Your task to perform on an android device: Clear the cart on bestbuy. Search for "duracell triple a" on bestbuy, select the first entry, and add it to the cart. Image 0: 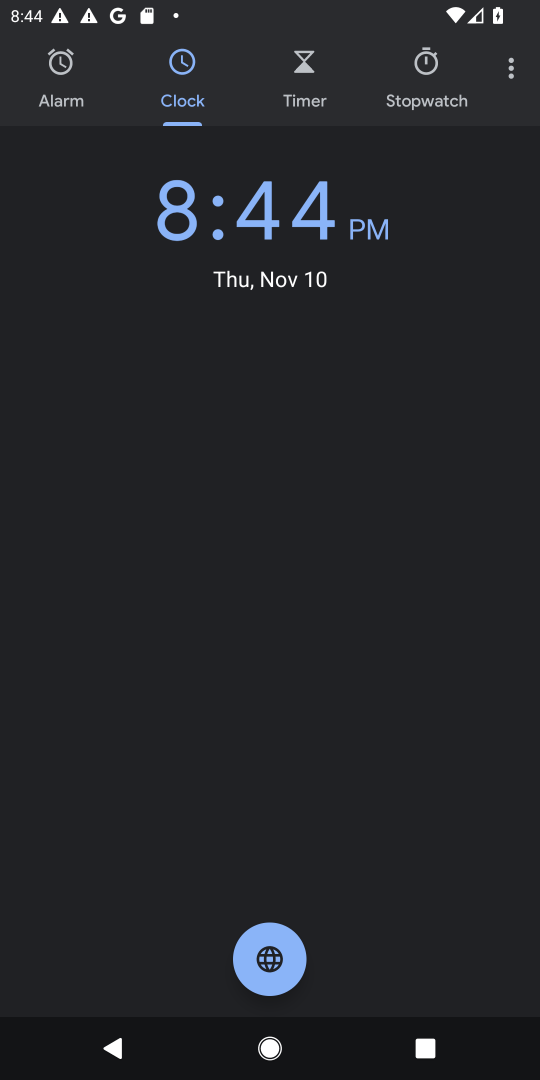
Step 0: press home button
Your task to perform on an android device: Clear the cart on bestbuy. Search for "duracell triple a" on bestbuy, select the first entry, and add it to the cart. Image 1: 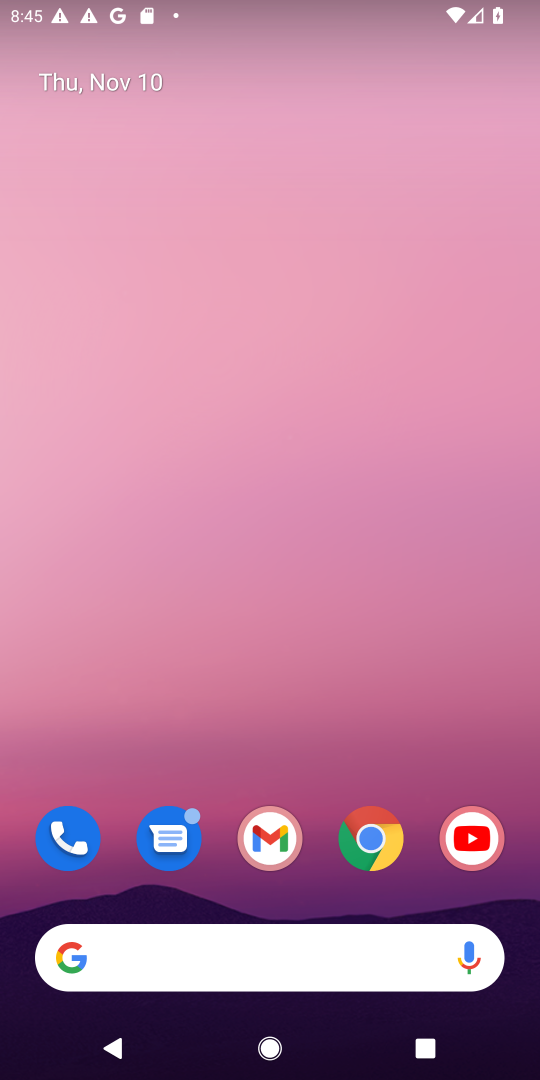
Step 1: drag from (313, 904) to (300, 67)
Your task to perform on an android device: Clear the cart on bestbuy. Search for "duracell triple a" on bestbuy, select the first entry, and add it to the cart. Image 2: 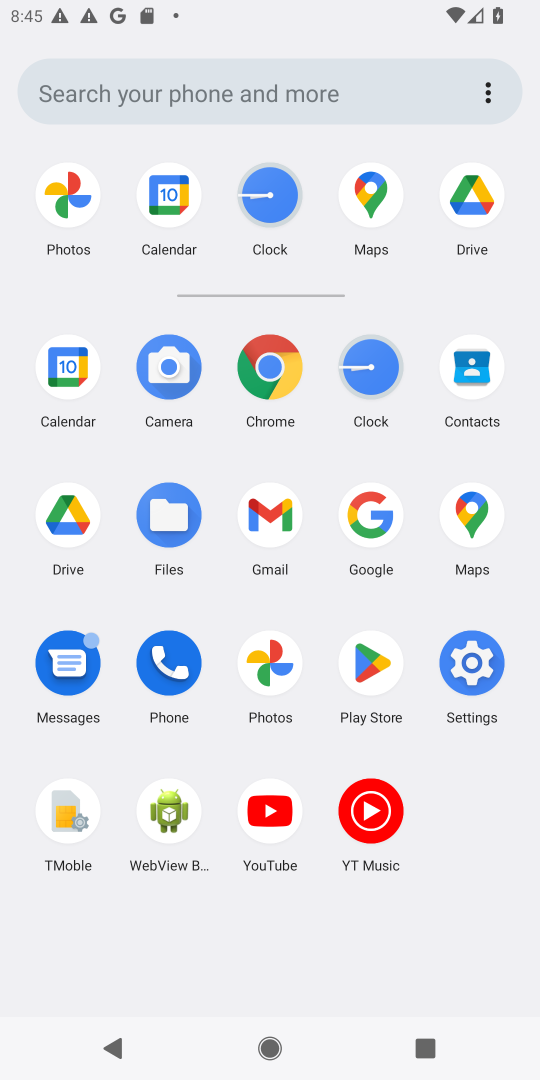
Step 2: click (269, 365)
Your task to perform on an android device: Clear the cart on bestbuy. Search for "duracell triple a" on bestbuy, select the first entry, and add it to the cart. Image 3: 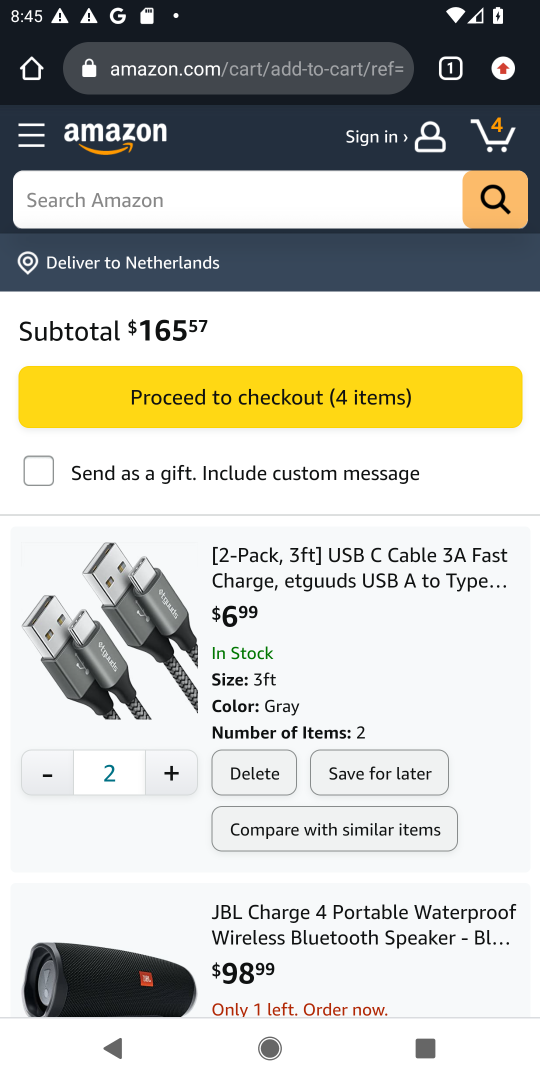
Step 3: click (309, 68)
Your task to perform on an android device: Clear the cart on bestbuy. Search for "duracell triple a" on bestbuy, select the first entry, and add it to the cart. Image 4: 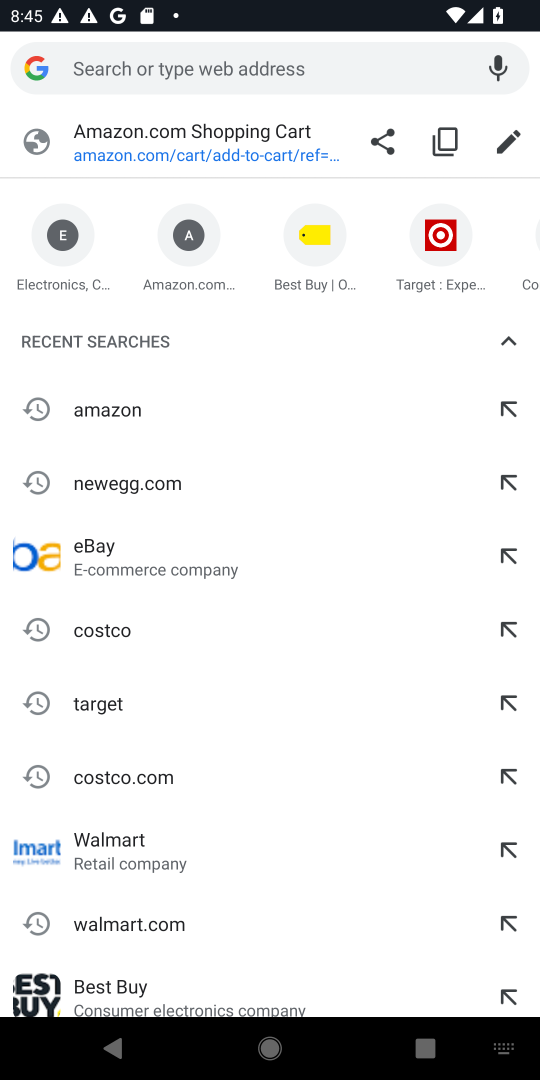
Step 4: type "bestbuy.com"
Your task to perform on an android device: Clear the cart on bestbuy. Search for "duracell triple a" on bestbuy, select the first entry, and add it to the cart. Image 5: 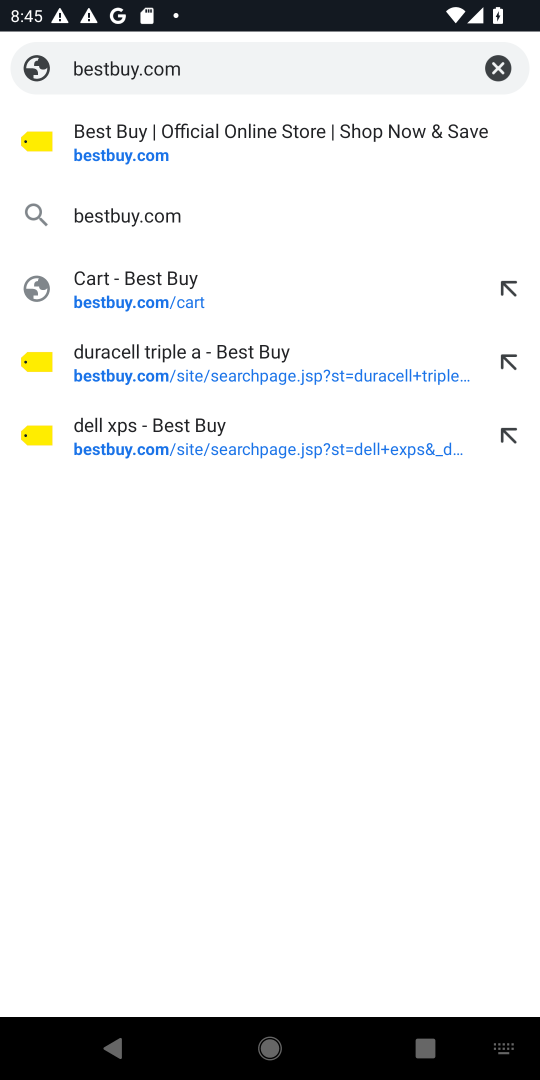
Step 5: press enter
Your task to perform on an android device: Clear the cart on bestbuy. Search for "duracell triple a" on bestbuy, select the first entry, and add it to the cart. Image 6: 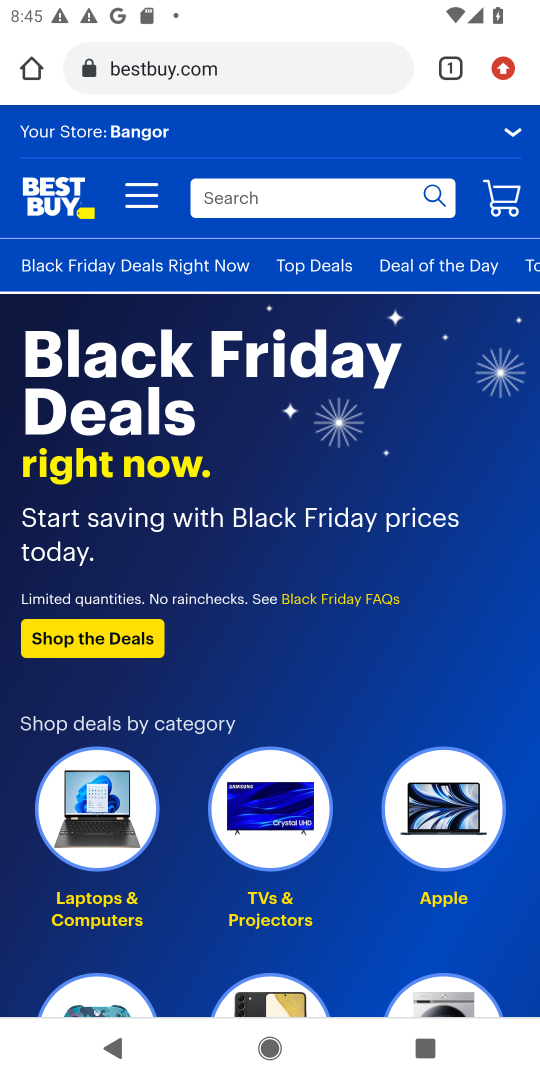
Step 6: click (508, 200)
Your task to perform on an android device: Clear the cart on bestbuy. Search for "duracell triple a" on bestbuy, select the first entry, and add it to the cart. Image 7: 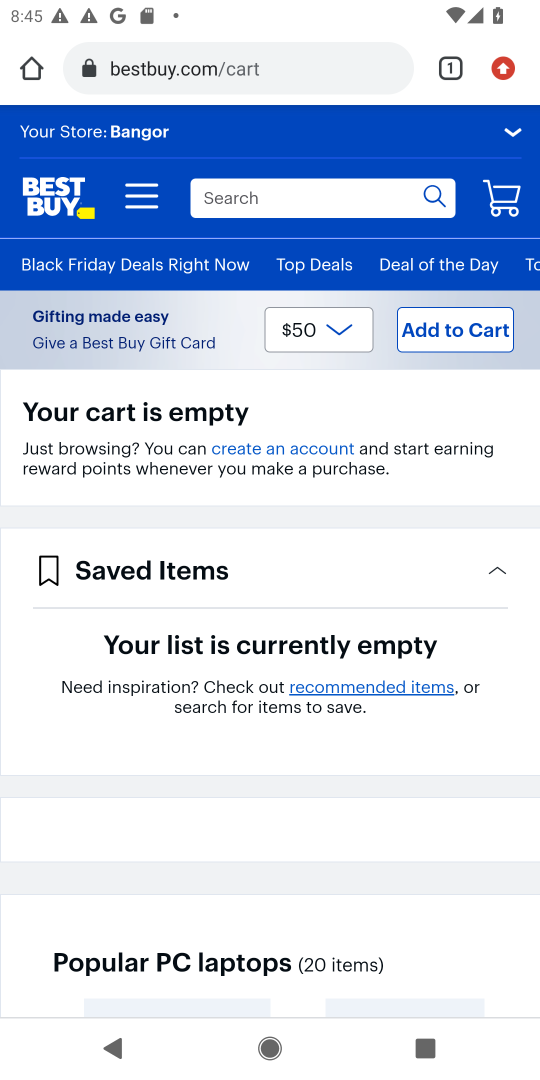
Step 7: click (331, 197)
Your task to perform on an android device: Clear the cart on bestbuy. Search for "duracell triple a" on bestbuy, select the first entry, and add it to the cart. Image 8: 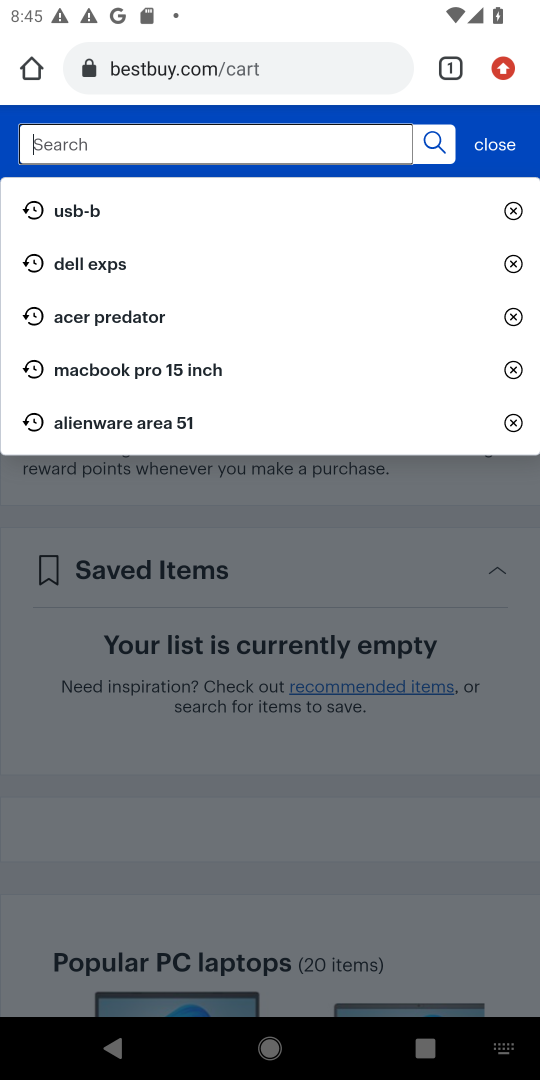
Step 8: type "duracell triple a"
Your task to perform on an android device: Clear the cart on bestbuy. Search for "duracell triple a" on bestbuy, select the first entry, and add it to the cart. Image 9: 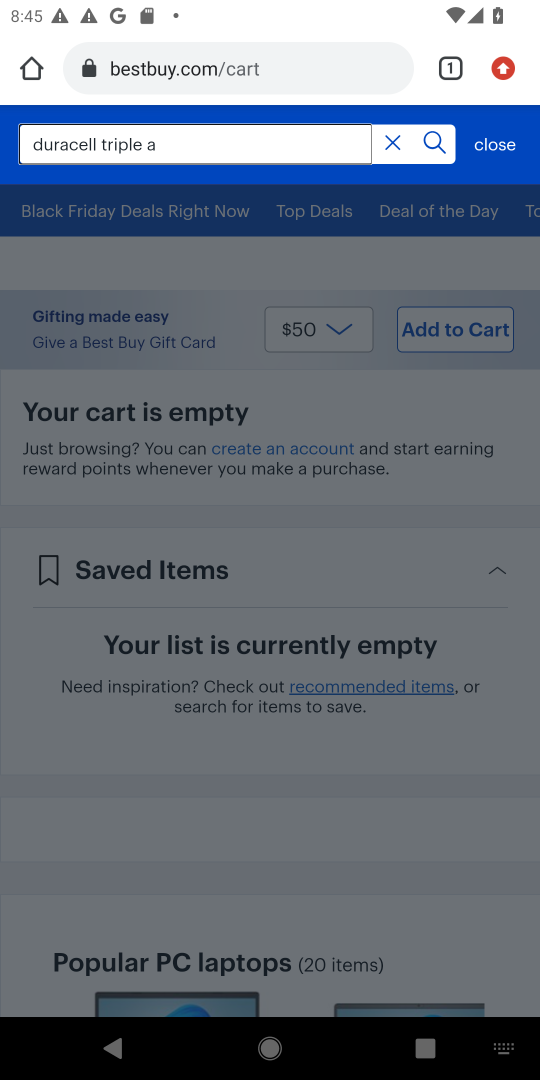
Step 9: press enter
Your task to perform on an android device: Clear the cart on bestbuy. Search for "duracell triple a" on bestbuy, select the first entry, and add it to the cart. Image 10: 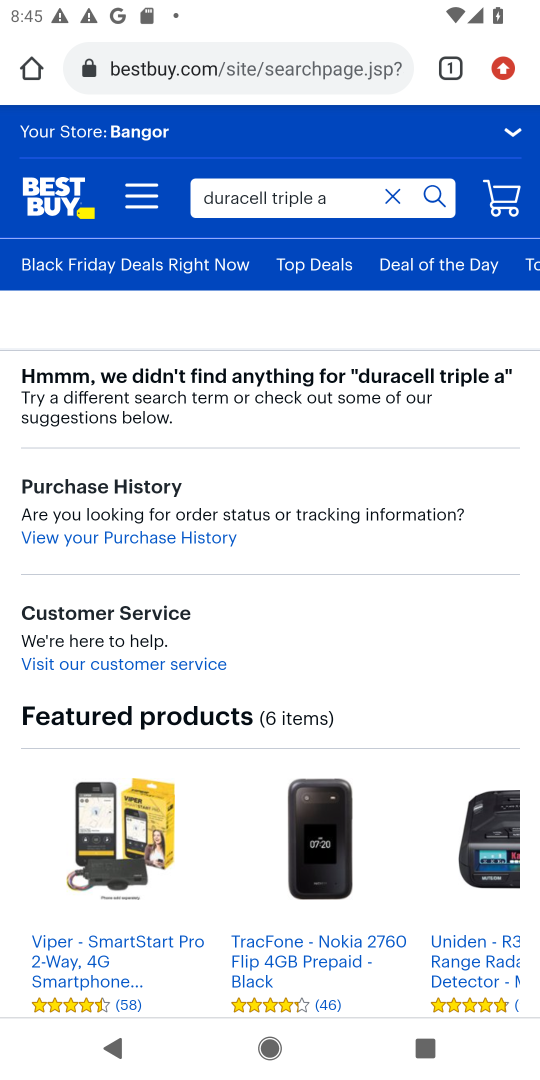
Step 10: click (87, 344)
Your task to perform on an android device: Clear the cart on bestbuy. Search for "duracell triple a" on bestbuy, select the first entry, and add it to the cart. Image 11: 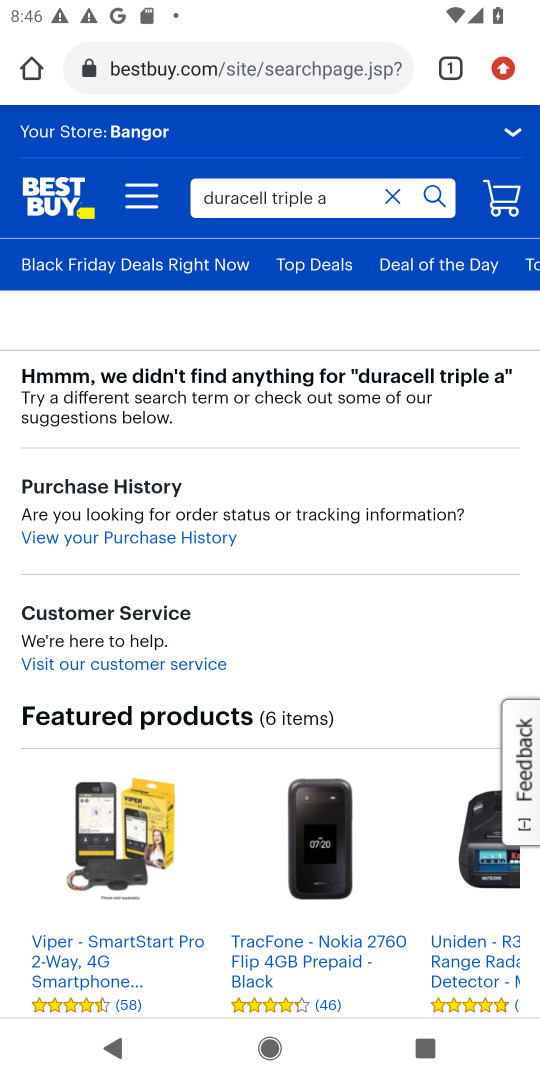
Step 11: task complete